Your task to perform on an android device: add a contact Image 0: 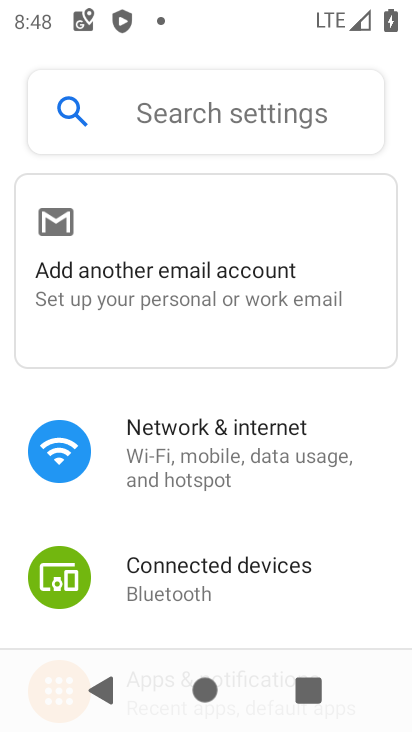
Step 0: press home button
Your task to perform on an android device: add a contact Image 1: 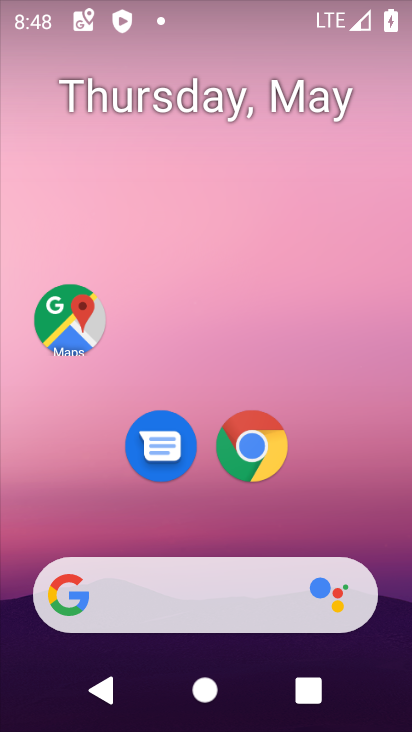
Step 1: drag from (403, 617) to (347, 145)
Your task to perform on an android device: add a contact Image 2: 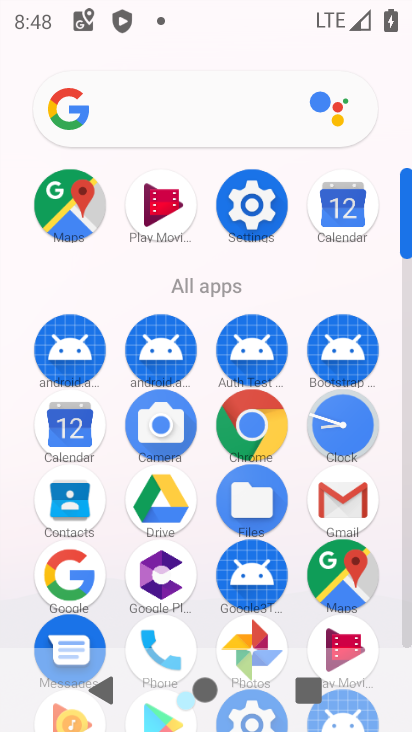
Step 2: click (406, 631)
Your task to perform on an android device: add a contact Image 3: 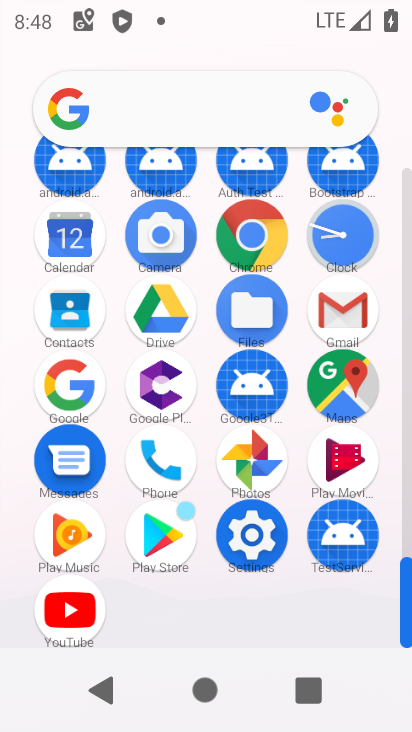
Step 3: click (69, 312)
Your task to perform on an android device: add a contact Image 4: 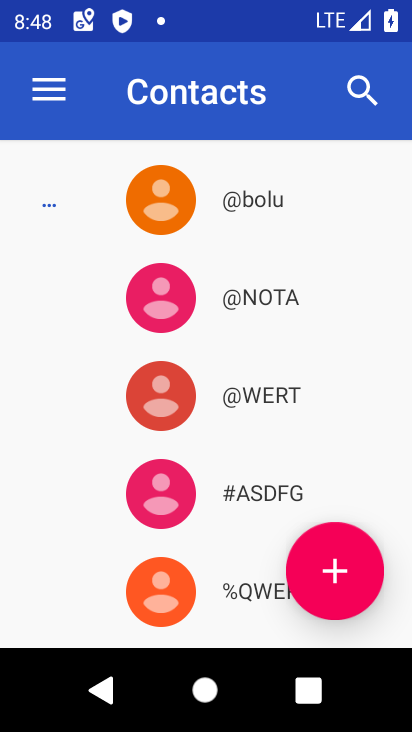
Step 4: click (330, 570)
Your task to perform on an android device: add a contact Image 5: 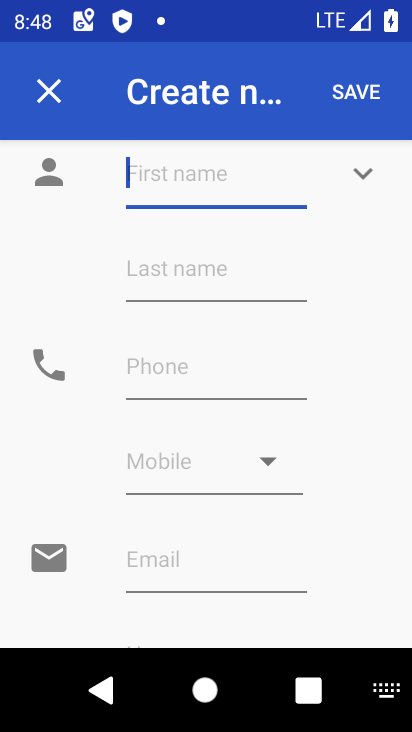
Step 5: type "fghgjj"
Your task to perform on an android device: add a contact Image 6: 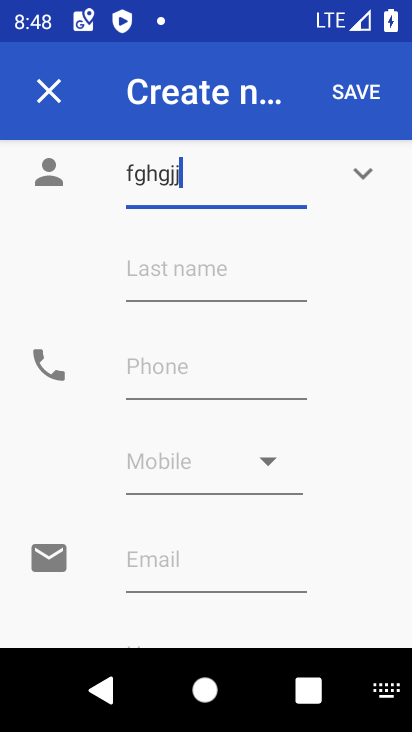
Step 6: click (168, 381)
Your task to perform on an android device: add a contact Image 7: 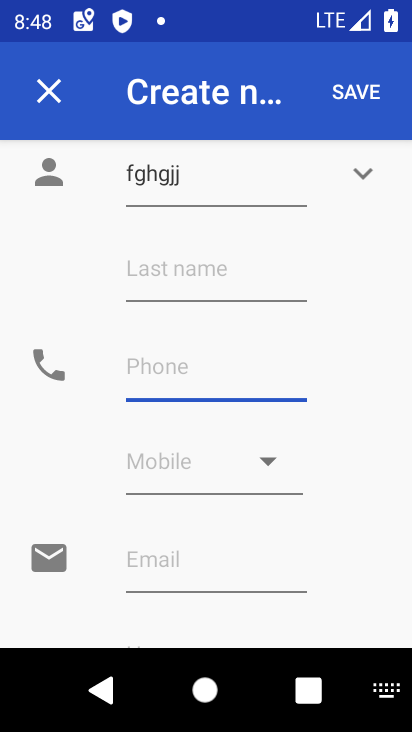
Step 7: type "464789844"
Your task to perform on an android device: add a contact Image 8: 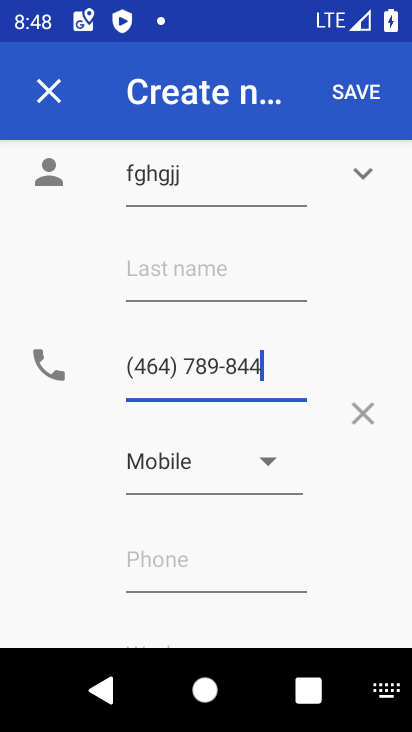
Step 8: click (259, 455)
Your task to perform on an android device: add a contact Image 9: 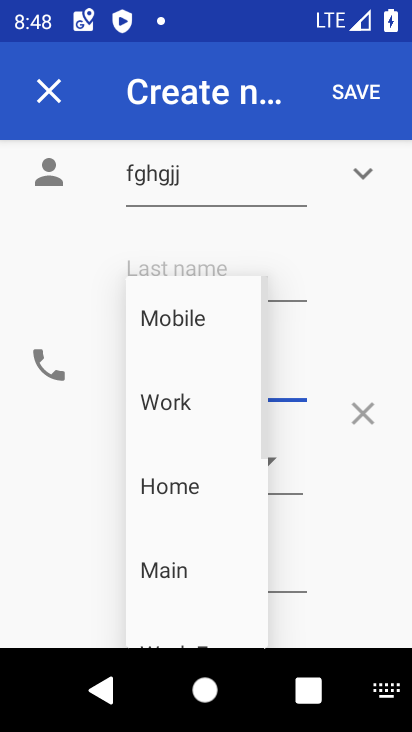
Step 9: click (168, 391)
Your task to perform on an android device: add a contact Image 10: 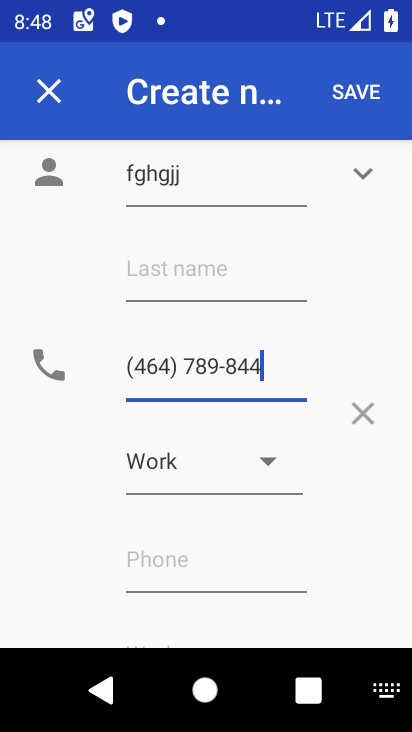
Step 10: click (351, 83)
Your task to perform on an android device: add a contact Image 11: 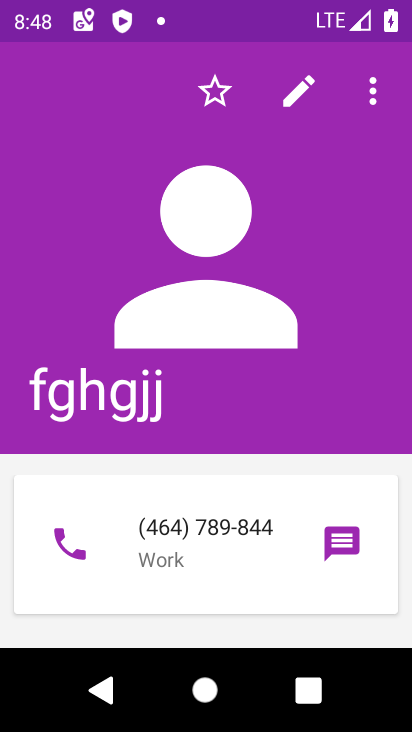
Step 11: task complete